Your task to perform on an android device: Open the Play Movies app and select the watchlist tab. Image 0: 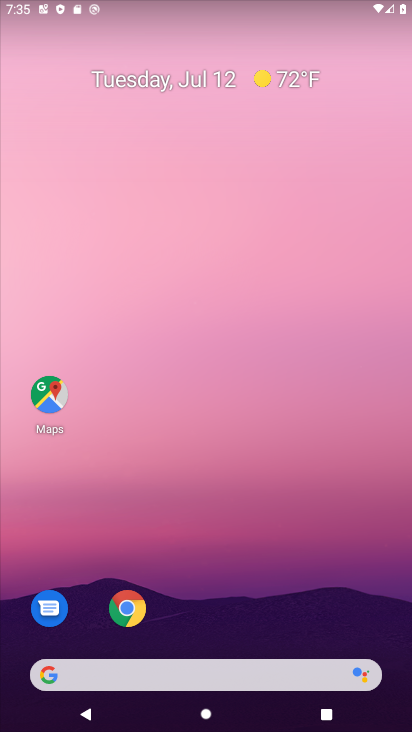
Step 0: drag from (368, 623) to (382, 125)
Your task to perform on an android device: Open the Play Movies app and select the watchlist tab. Image 1: 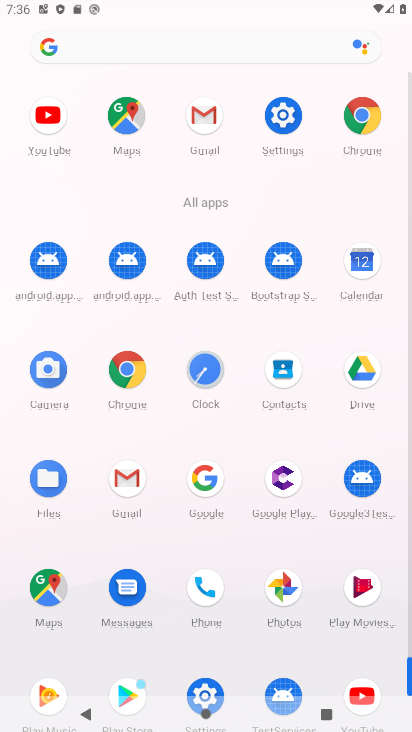
Step 1: click (358, 592)
Your task to perform on an android device: Open the Play Movies app and select the watchlist tab. Image 2: 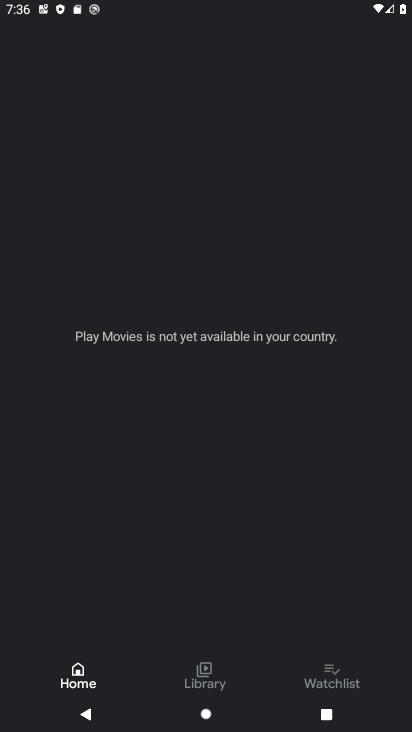
Step 2: click (342, 679)
Your task to perform on an android device: Open the Play Movies app and select the watchlist tab. Image 3: 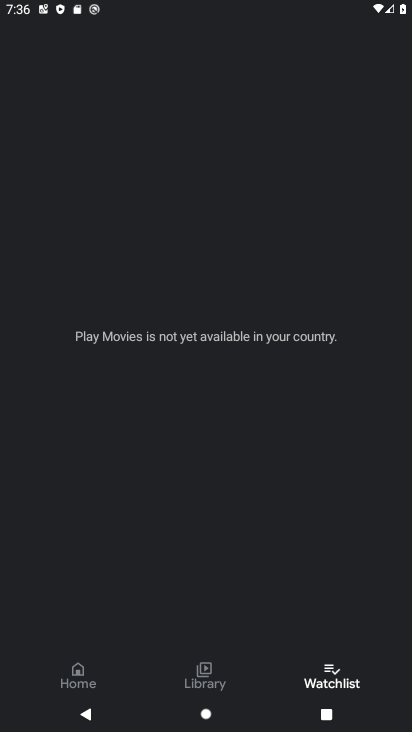
Step 3: task complete